Your task to perform on an android device: change the clock display to show seconds Image 0: 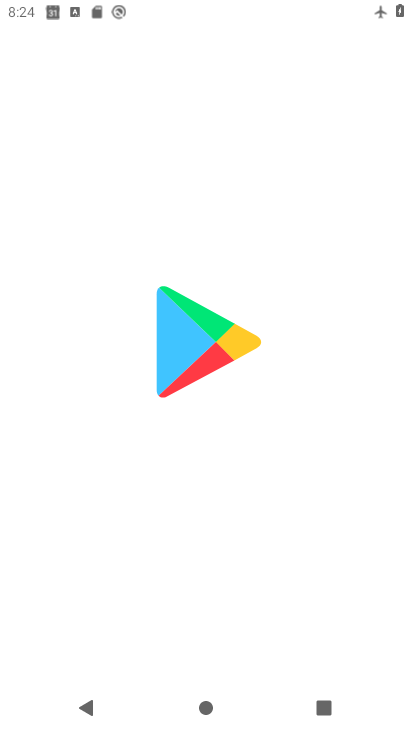
Step 0: drag from (346, 516) to (309, 70)
Your task to perform on an android device: change the clock display to show seconds Image 1: 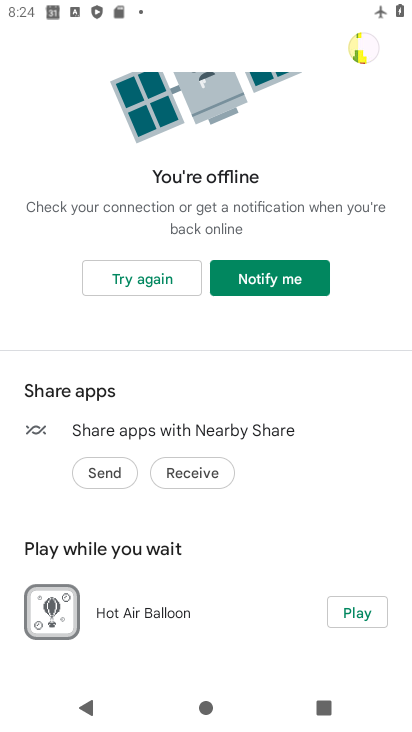
Step 1: press home button
Your task to perform on an android device: change the clock display to show seconds Image 2: 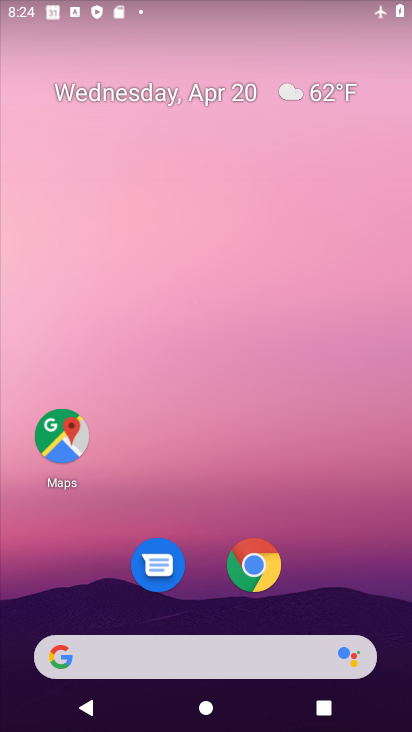
Step 2: drag from (373, 565) to (374, 71)
Your task to perform on an android device: change the clock display to show seconds Image 3: 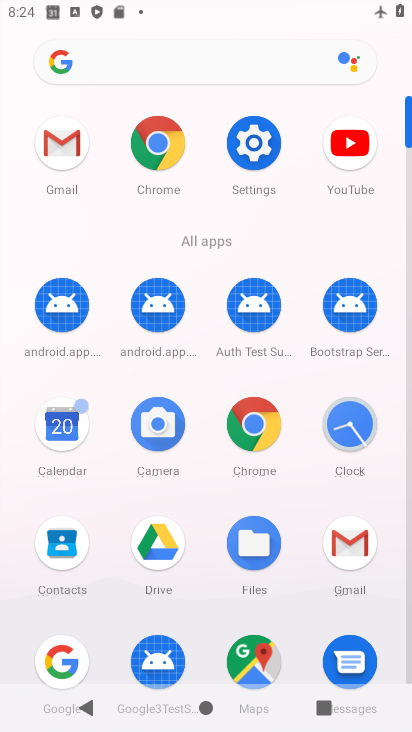
Step 3: click (349, 434)
Your task to perform on an android device: change the clock display to show seconds Image 4: 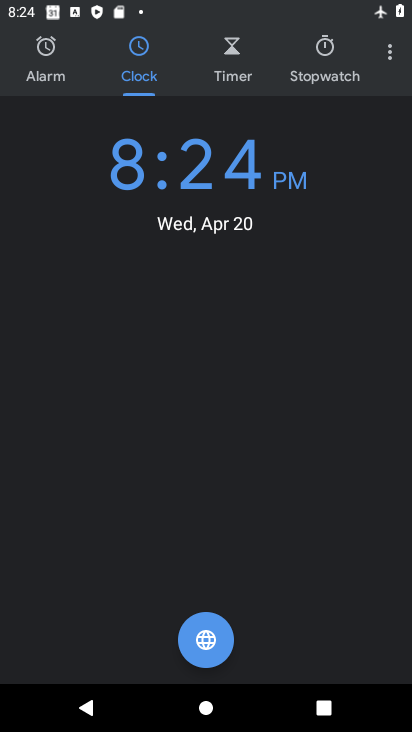
Step 4: click (382, 66)
Your task to perform on an android device: change the clock display to show seconds Image 5: 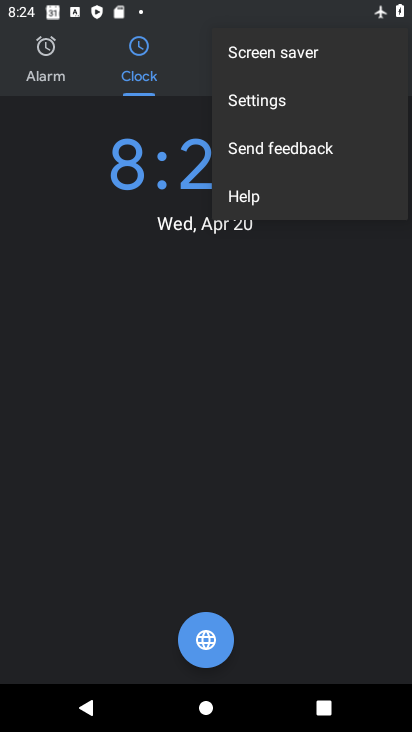
Step 5: click (250, 105)
Your task to perform on an android device: change the clock display to show seconds Image 6: 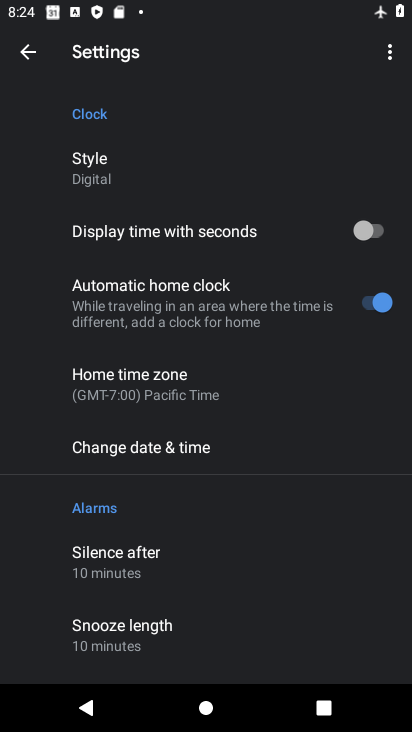
Step 6: click (369, 234)
Your task to perform on an android device: change the clock display to show seconds Image 7: 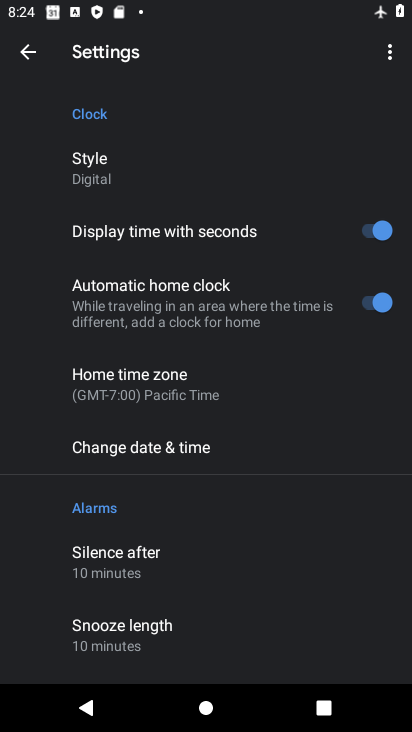
Step 7: task complete